Your task to perform on an android device: Open Android settings Image 0: 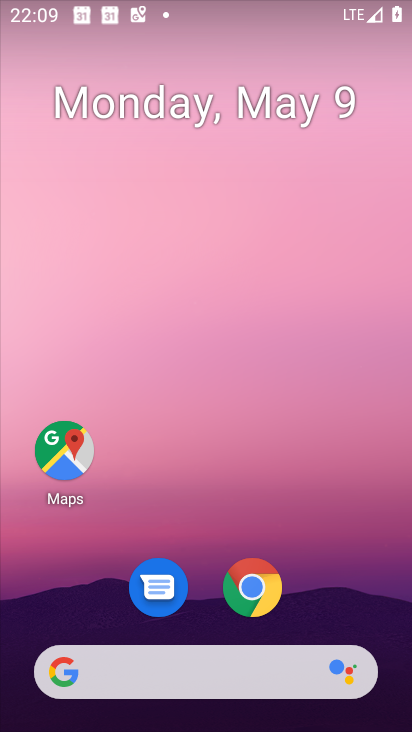
Step 0: drag from (203, 610) to (234, 34)
Your task to perform on an android device: Open Android settings Image 1: 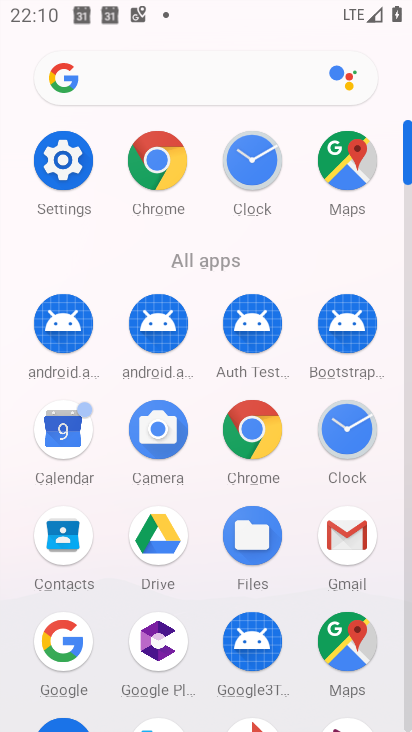
Step 1: click (70, 179)
Your task to perform on an android device: Open Android settings Image 2: 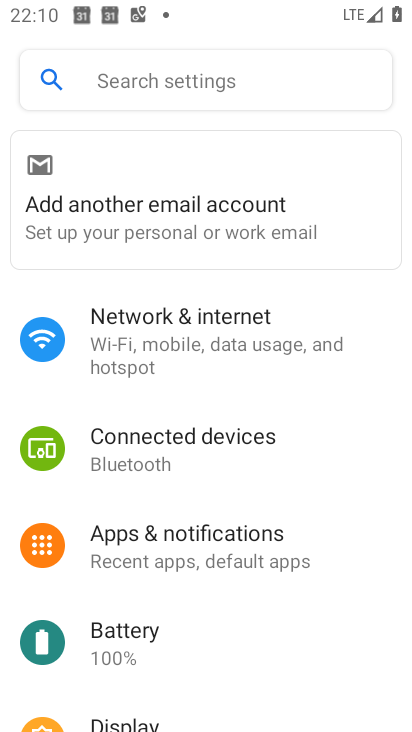
Step 2: task complete